Your task to perform on an android device: Turn off the flashlight Image 0: 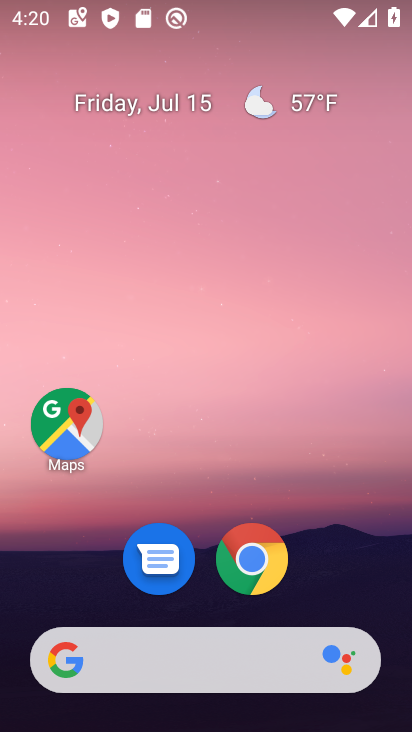
Step 0: drag from (124, 557) to (214, 54)
Your task to perform on an android device: Turn off the flashlight Image 1: 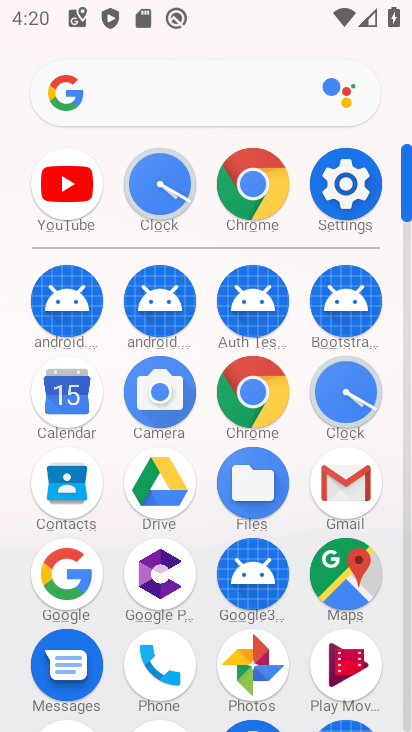
Step 1: click (362, 188)
Your task to perform on an android device: Turn off the flashlight Image 2: 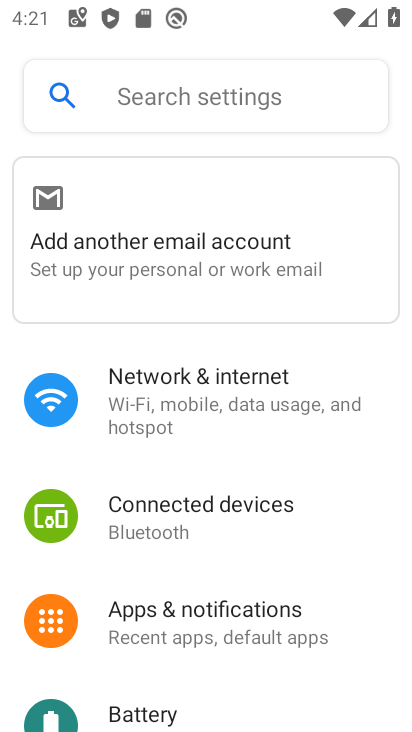
Step 2: click (159, 91)
Your task to perform on an android device: Turn off the flashlight Image 3: 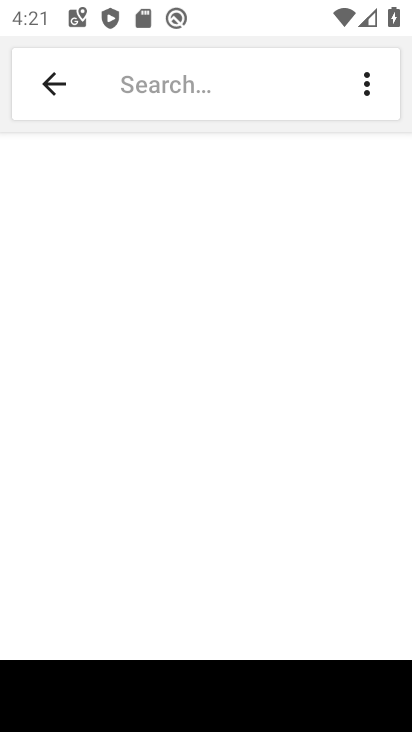
Step 3: type "flashlight"
Your task to perform on an android device: Turn off the flashlight Image 4: 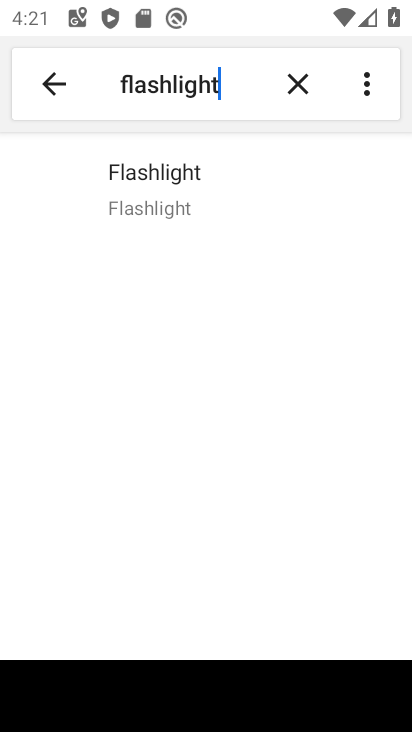
Step 4: click (159, 176)
Your task to perform on an android device: Turn off the flashlight Image 5: 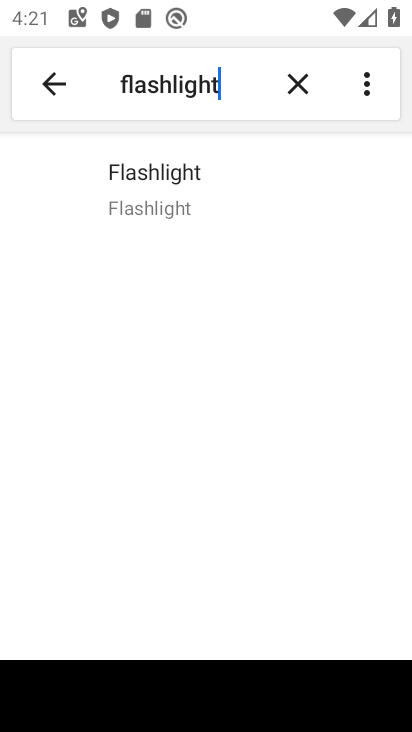
Step 5: task complete